Your task to perform on an android device: When is my next meeting? Image 0: 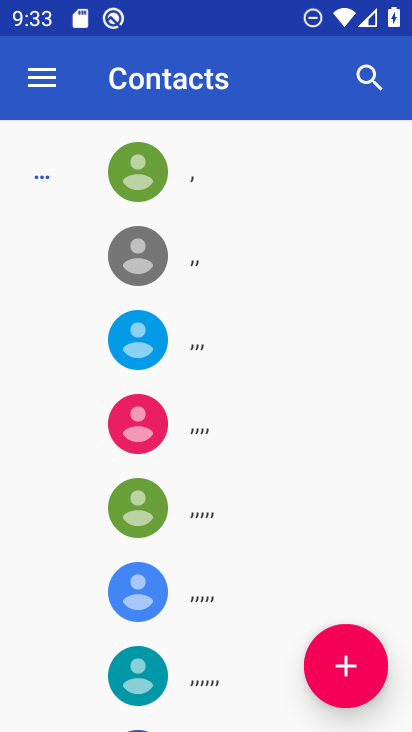
Step 0: press home button
Your task to perform on an android device: When is my next meeting? Image 1: 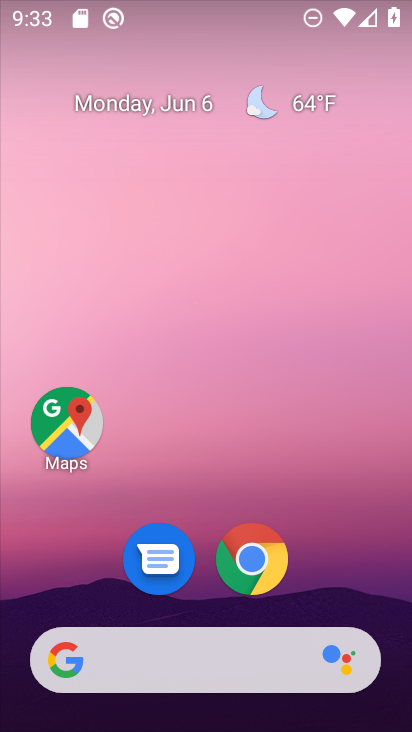
Step 1: drag from (211, 715) to (202, 162)
Your task to perform on an android device: When is my next meeting? Image 2: 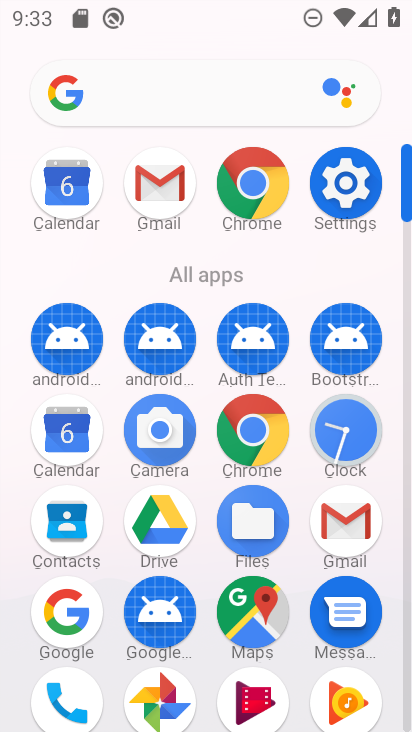
Step 2: click (60, 440)
Your task to perform on an android device: When is my next meeting? Image 3: 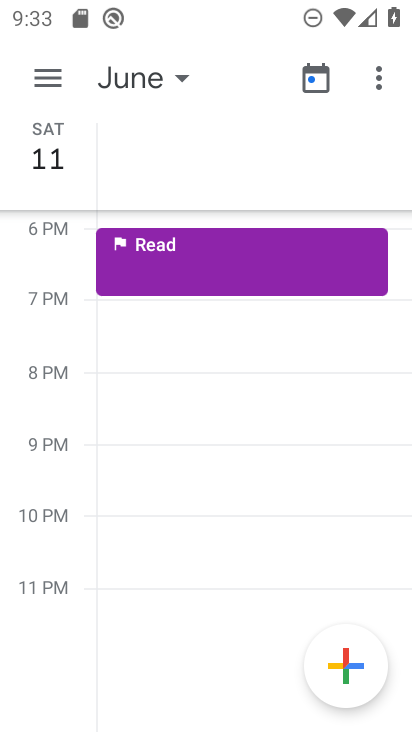
Step 3: click (175, 76)
Your task to perform on an android device: When is my next meeting? Image 4: 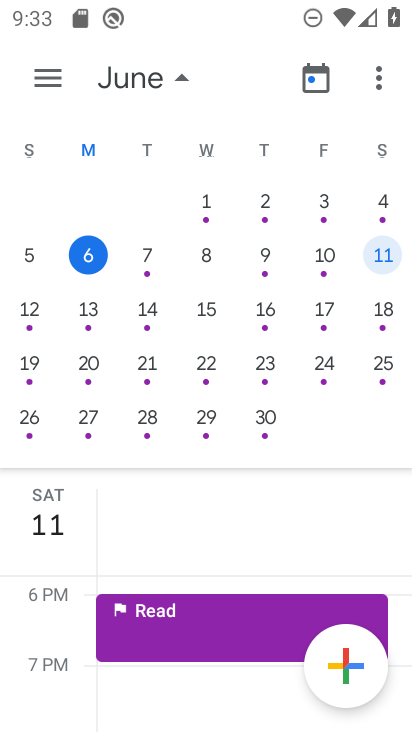
Step 4: click (91, 255)
Your task to perform on an android device: When is my next meeting? Image 5: 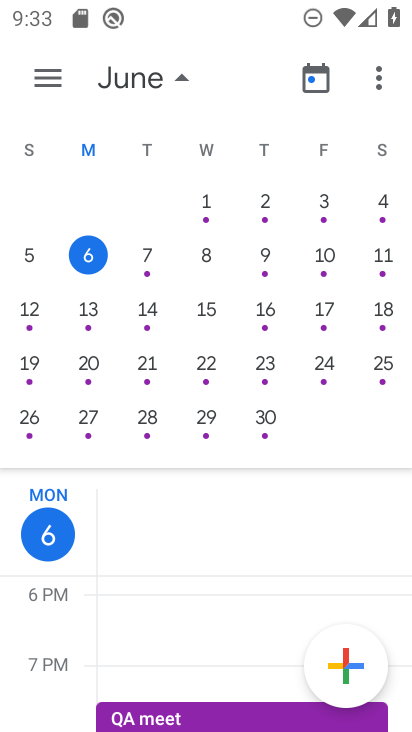
Step 5: click (145, 722)
Your task to perform on an android device: When is my next meeting? Image 6: 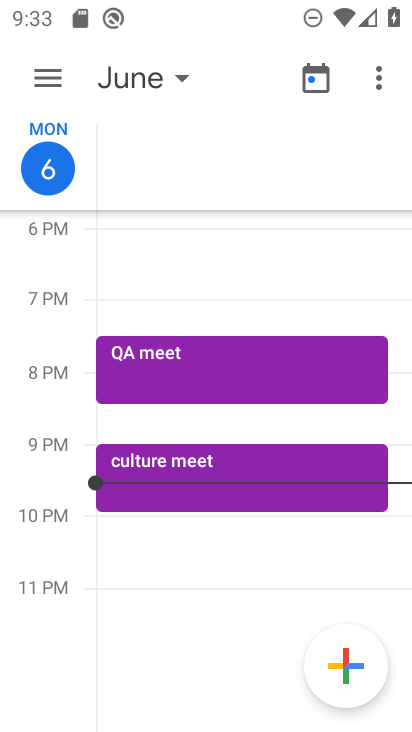
Step 6: task complete